Your task to perform on an android device: Open calendar and show me the first week of next month Image 0: 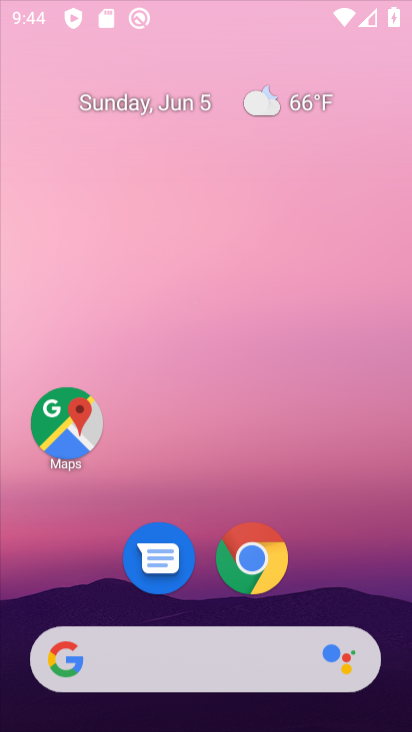
Step 0: press home button
Your task to perform on an android device: Open calendar and show me the first week of next month Image 1: 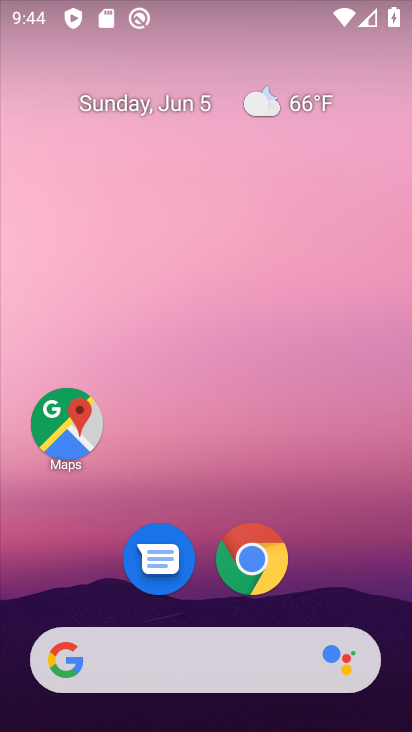
Step 1: drag from (212, 605) to (220, 2)
Your task to perform on an android device: Open calendar and show me the first week of next month Image 2: 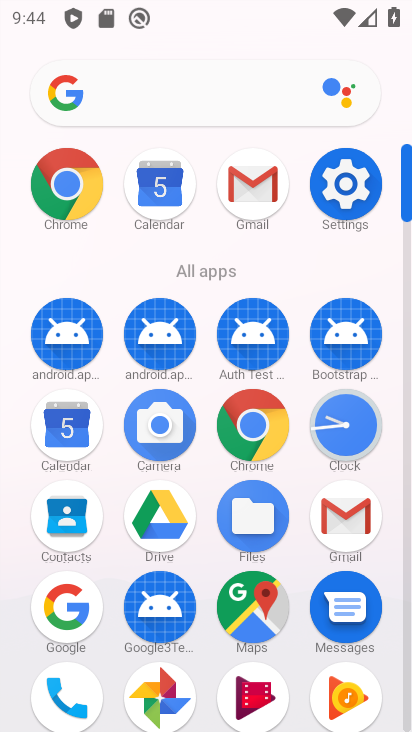
Step 2: click (66, 419)
Your task to perform on an android device: Open calendar and show me the first week of next month Image 3: 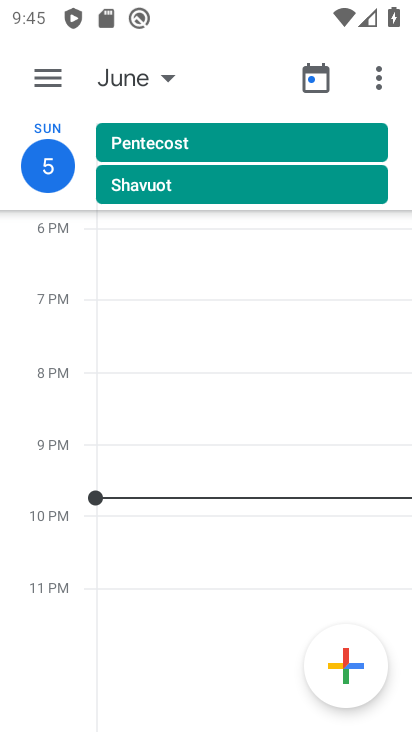
Step 3: click (159, 80)
Your task to perform on an android device: Open calendar and show me the first week of next month Image 4: 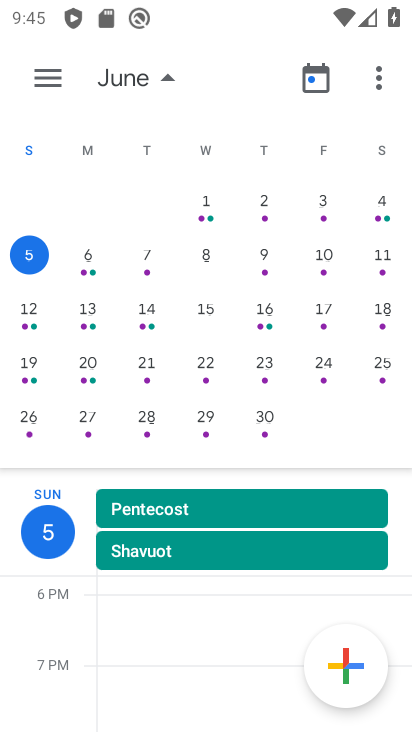
Step 4: drag from (350, 337) to (4, 326)
Your task to perform on an android device: Open calendar and show me the first week of next month Image 5: 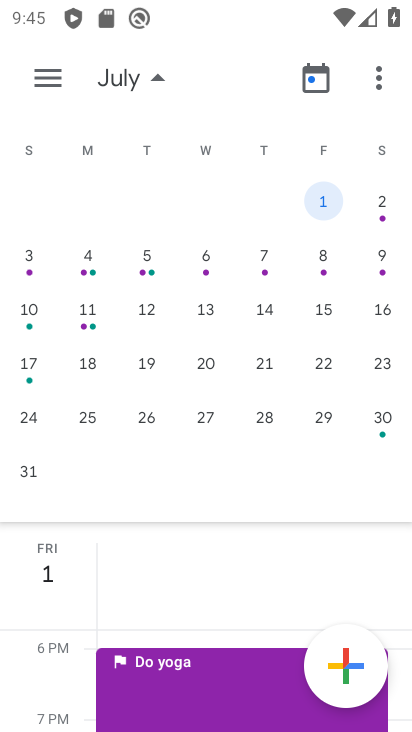
Step 5: click (31, 253)
Your task to perform on an android device: Open calendar and show me the first week of next month Image 6: 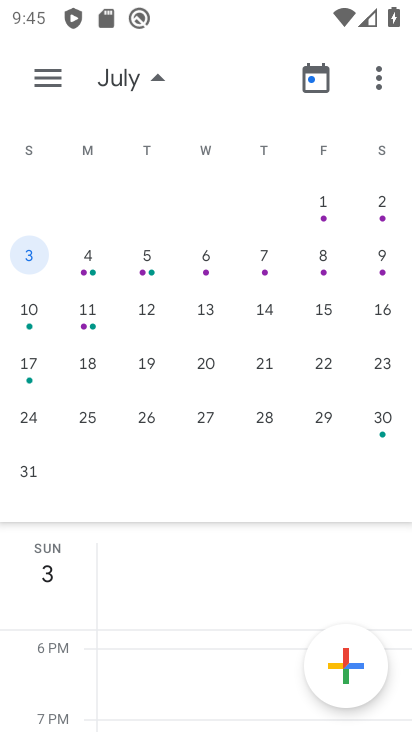
Step 6: click (158, 79)
Your task to perform on an android device: Open calendar and show me the first week of next month Image 7: 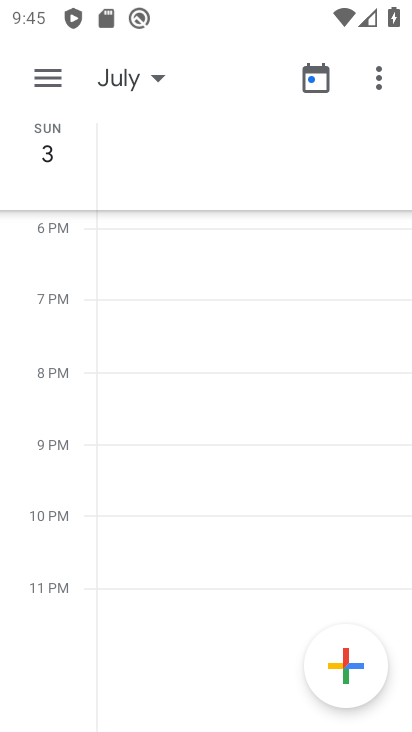
Step 7: click (66, 158)
Your task to perform on an android device: Open calendar and show me the first week of next month Image 8: 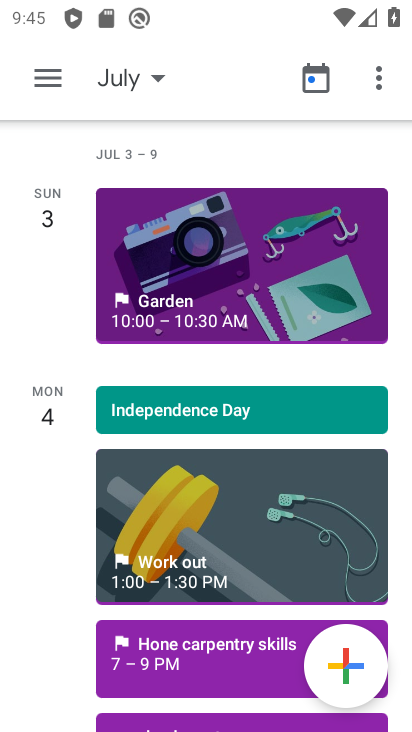
Step 8: task complete